Your task to perform on an android device: What is the news today? Image 0: 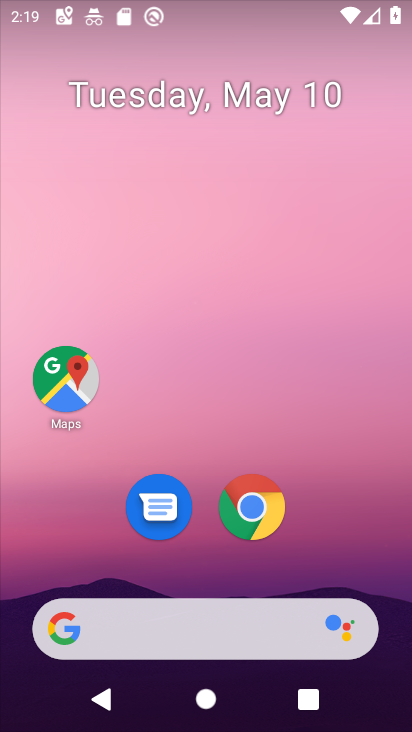
Step 0: click (249, 508)
Your task to perform on an android device: What is the news today? Image 1: 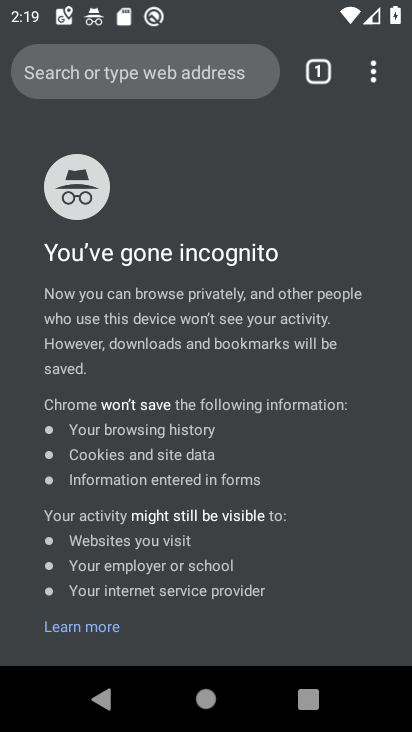
Step 1: click (149, 68)
Your task to perform on an android device: What is the news today? Image 2: 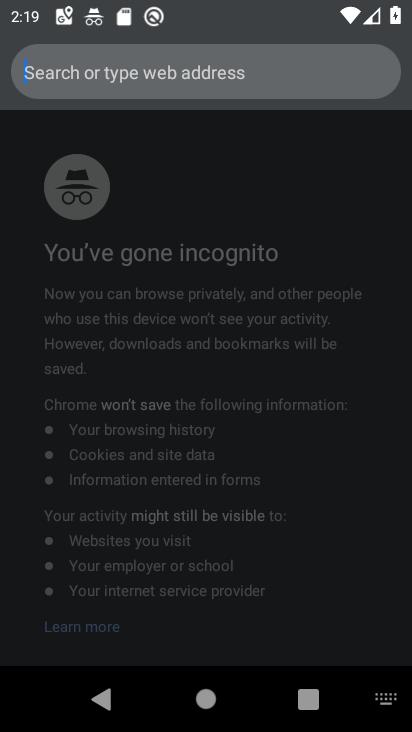
Step 2: type "What is the news today?"
Your task to perform on an android device: What is the news today? Image 3: 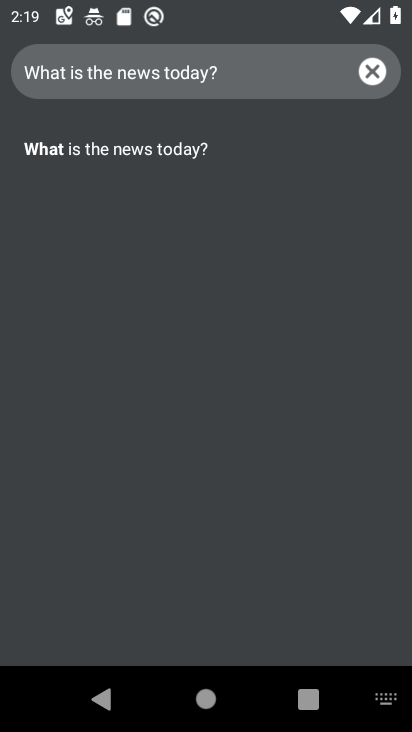
Step 3: click (143, 161)
Your task to perform on an android device: What is the news today? Image 4: 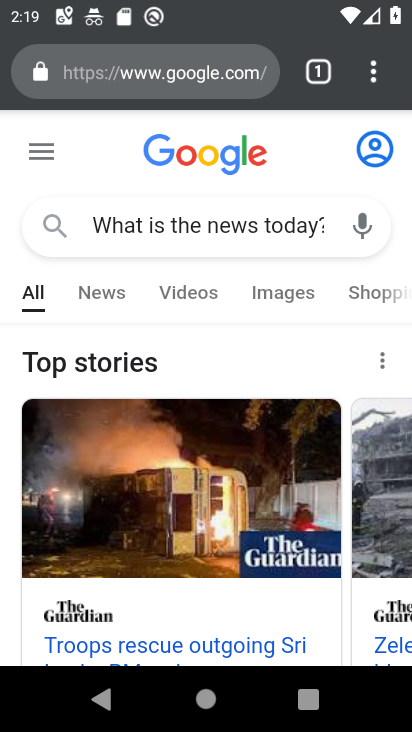
Step 4: task complete